Your task to perform on an android device: add a label to a message in the gmail app Image 0: 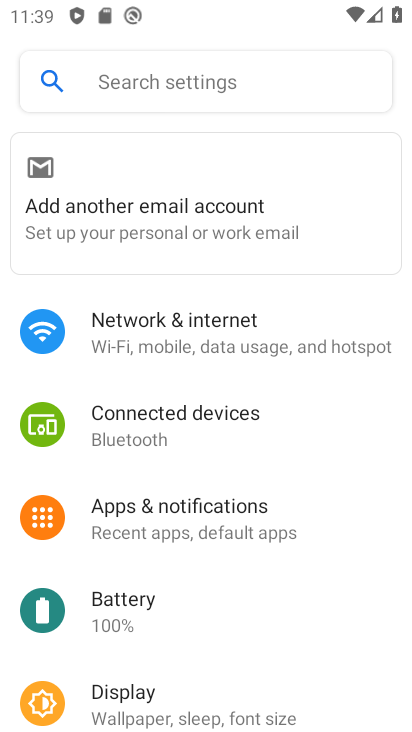
Step 0: press home button
Your task to perform on an android device: add a label to a message in the gmail app Image 1: 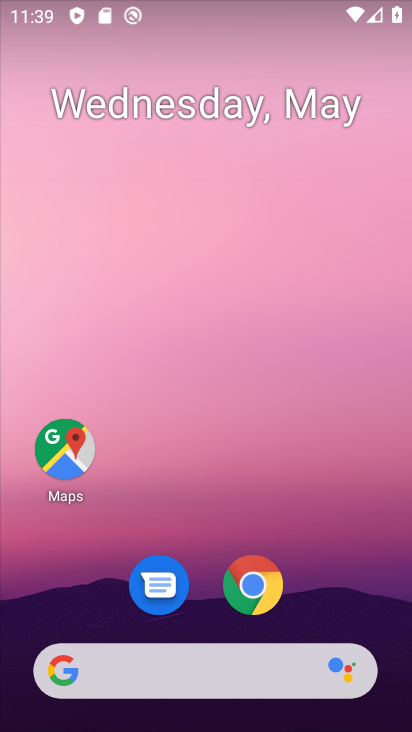
Step 1: drag from (328, 517) to (247, 63)
Your task to perform on an android device: add a label to a message in the gmail app Image 2: 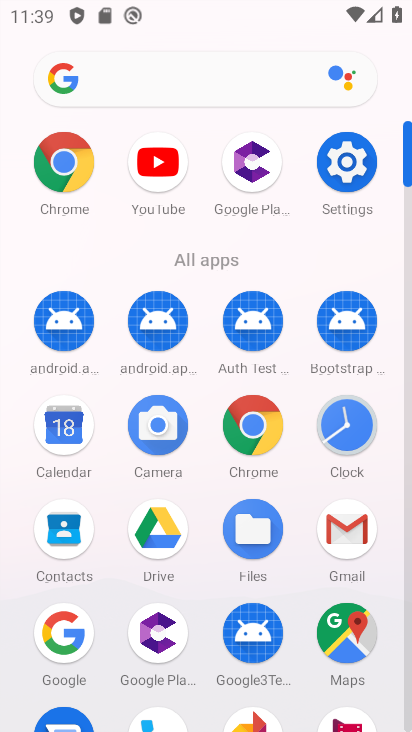
Step 2: click (347, 534)
Your task to perform on an android device: add a label to a message in the gmail app Image 3: 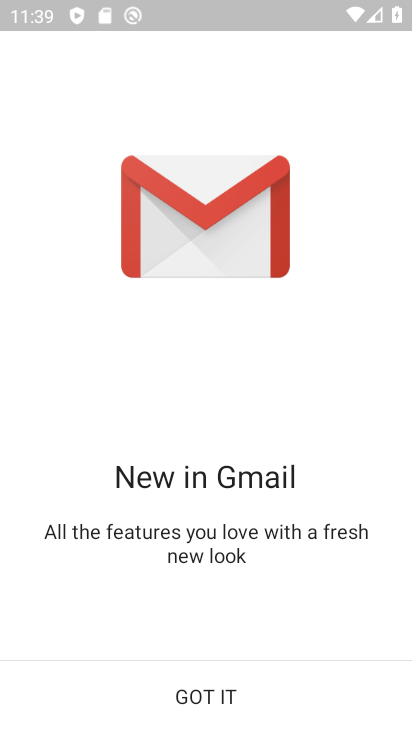
Step 3: click (227, 691)
Your task to perform on an android device: add a label to a message in the gmail app Image 4: 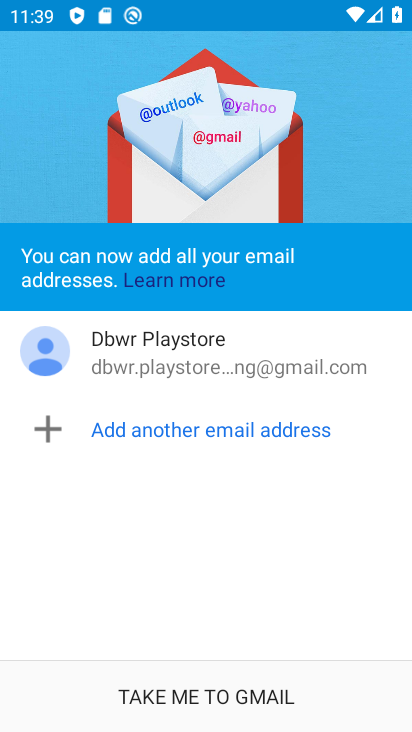
Step 4: click (234, 693)
Your task to perform on an android device: add a label to a message in the gmail app Image 5: 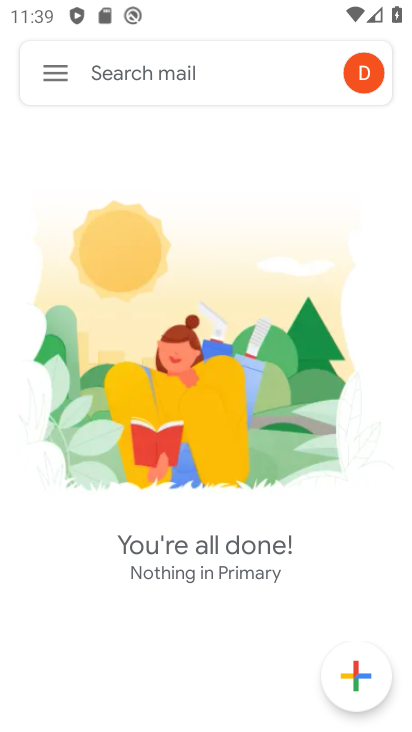
Step 5: click (53, 75)
Your task to perform on an android device: add a label to a message in the gmail app Image 6: 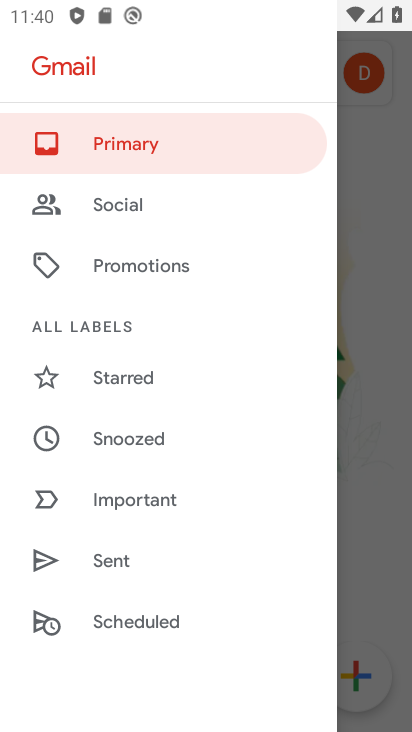
Step 6: drag from (199, 501) to (190, 203)
Your task to perform on an android device: add a label to a message in the gmail app Image 7: 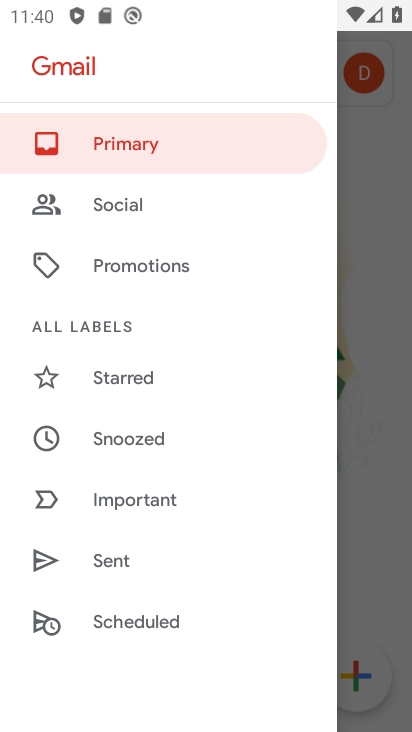
Step 7: drag from (142, 557) to (166, 117)
Your task to perform on an android device: add a label to a message in the gmail app Image 8: 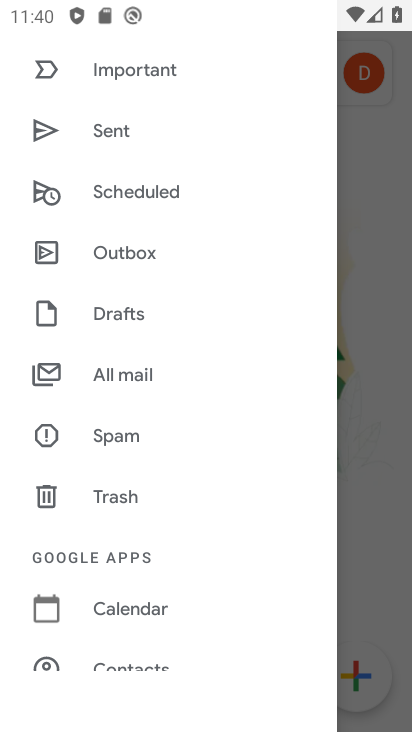
Step 8: click (138, 373)
Your task to perform on an android device: add a label to a message in the gmail app Image 9: 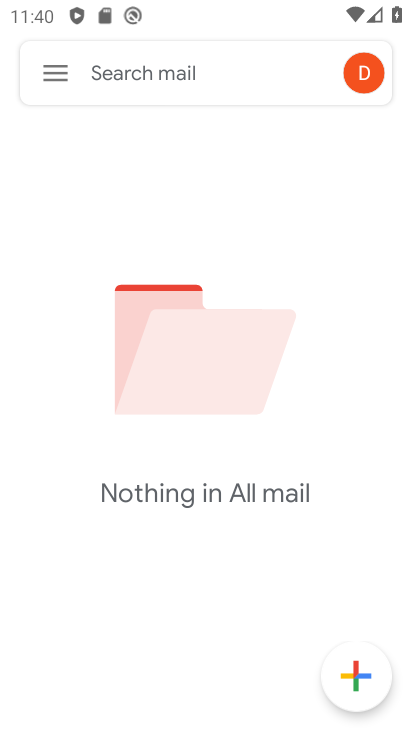
Step 9: task complete